Your task to perform on an android device: change keyboard looks Image 0: 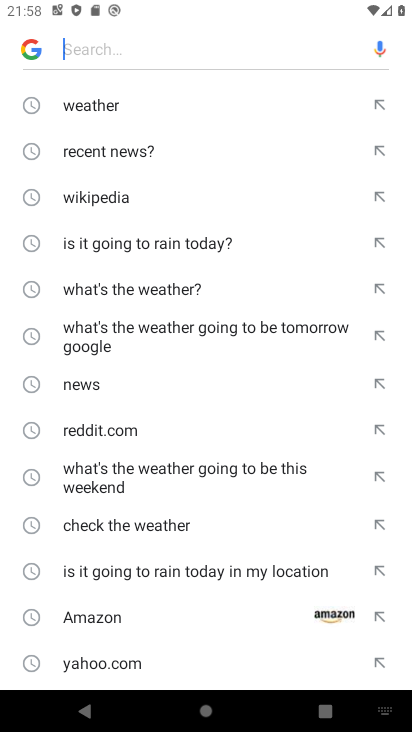
Step 0: press home button
Your task to perform on an android device: change keyboard looks Image 1: 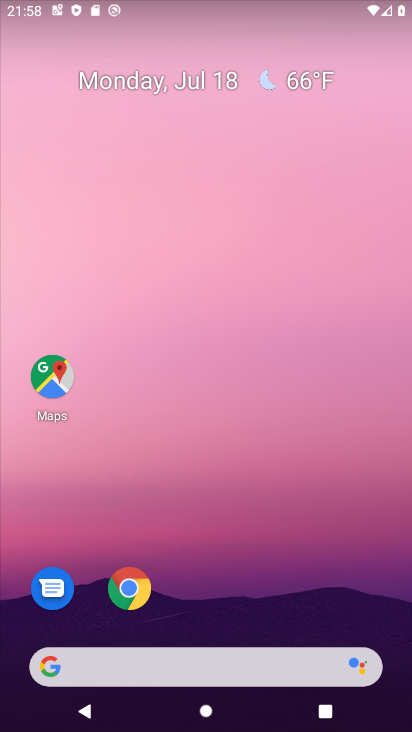
Step 1: drag from (154, 673) to (339, 13)
Your task to perform on an android device: change keyboard looks Image 2: 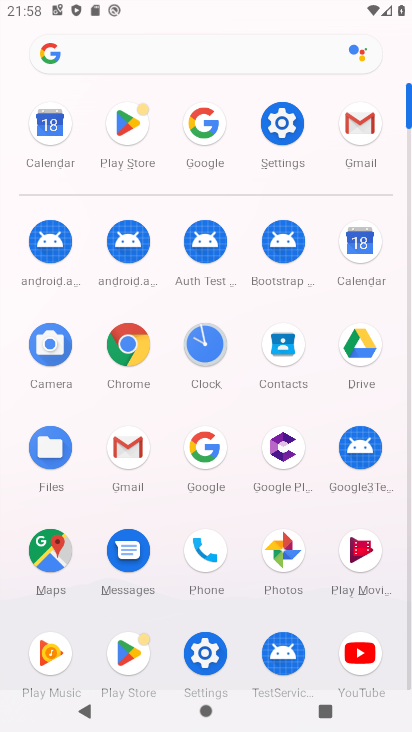
Step 2: click (279, 115)
Your task to perform on an android device: change keyboard looks Image 3: 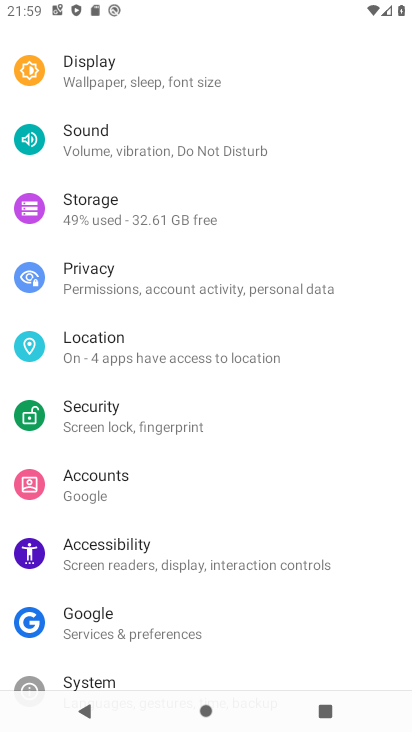
Step 3: drag from (256, 661) to (342, 127)
Your task to perform on an android device: change keyboard looks Image 4: 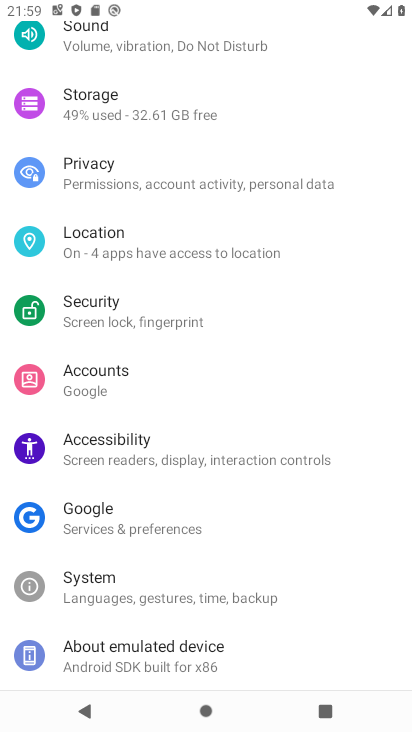
Step 4: click (137, 591)
Your task to perform on an android device: change keyboard looks Image 5: 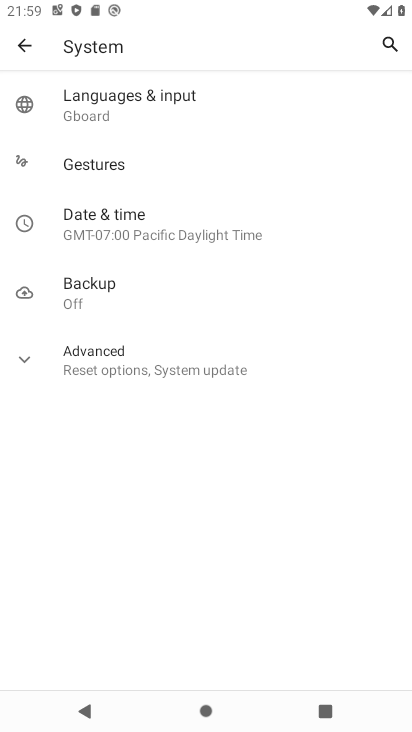
Step 5: click (108, 104)
Your task to perform on an android device: change keyboard looks Image 6: 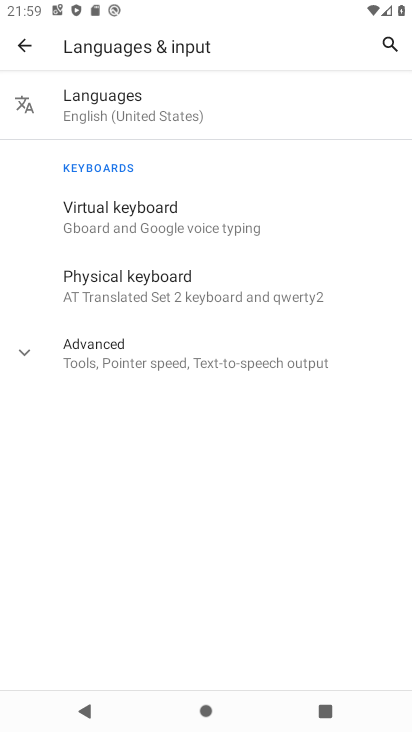
Step 6: click (156, 218)
Your task to perform on an android device: change keyboard looks Image 7: 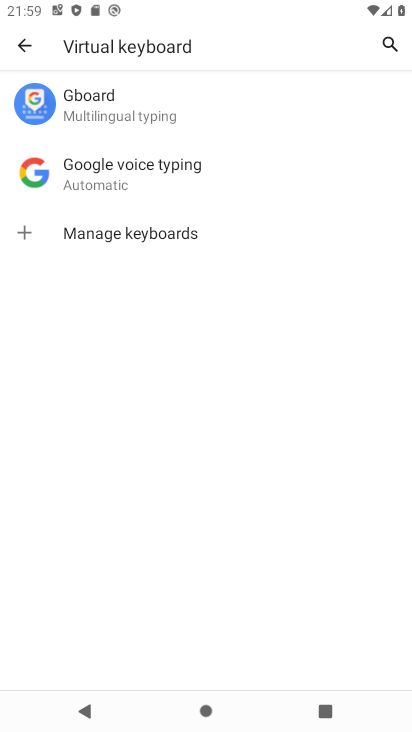
Step 7: click (117, 106)
Your task to perform on an android device: change keyboard looks Image 8: 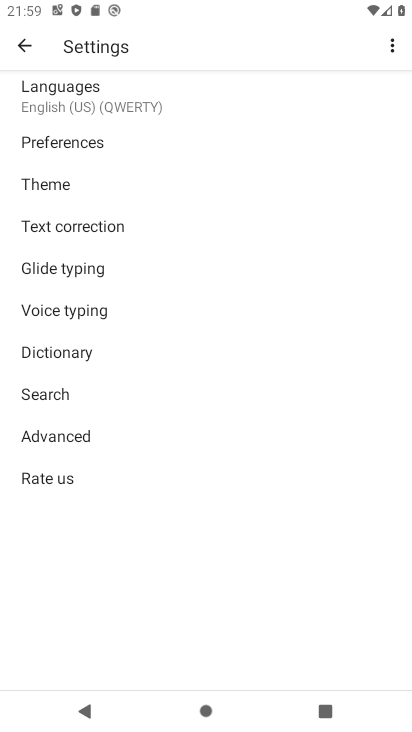
Step 8: click (63, 185)
Your task to perform on an android device: change keyboard looks Image 9: 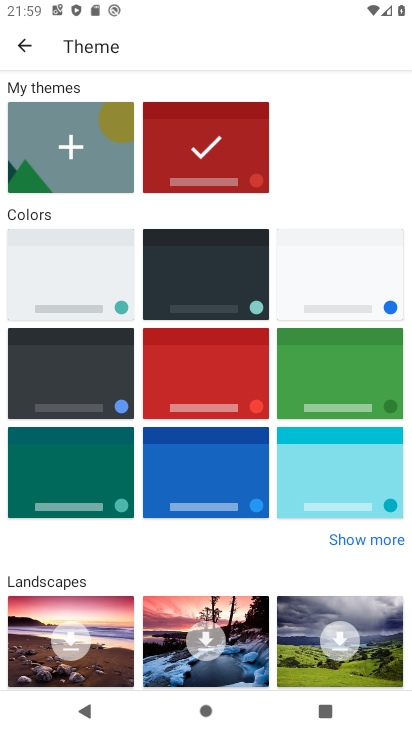
Step 9: click (317, 462)
Your task to perform on an android device: change keyboard looks Image 10: 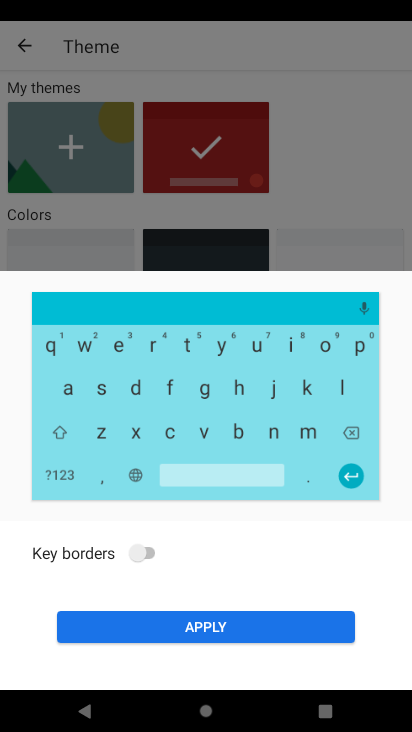
Step 10: click (212, 631)
Your task to perform on an android device: change keyboard looks Image 11: 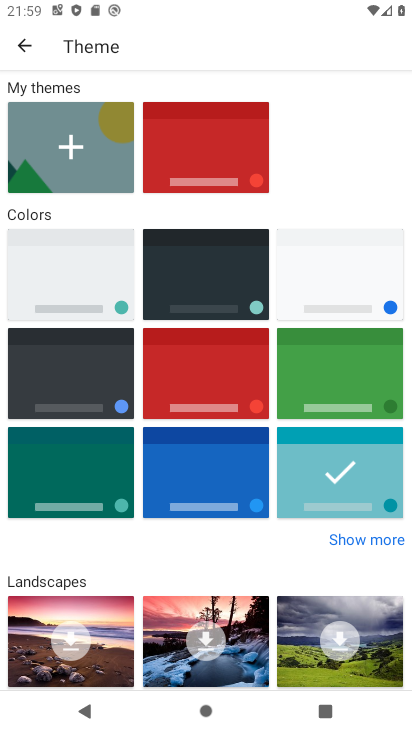
Step 11: task complete